Your task to perform on an android device: delete location history Image 0: 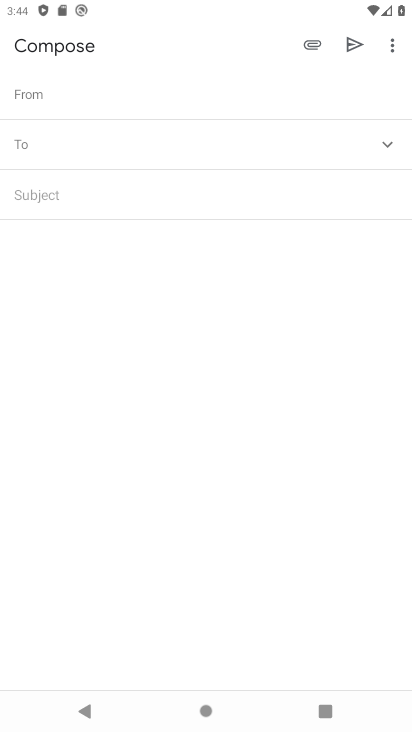
Step 0: drag from (266, 587) to (249, 306)
Your task to perform on an android device: delete location history Image 1: 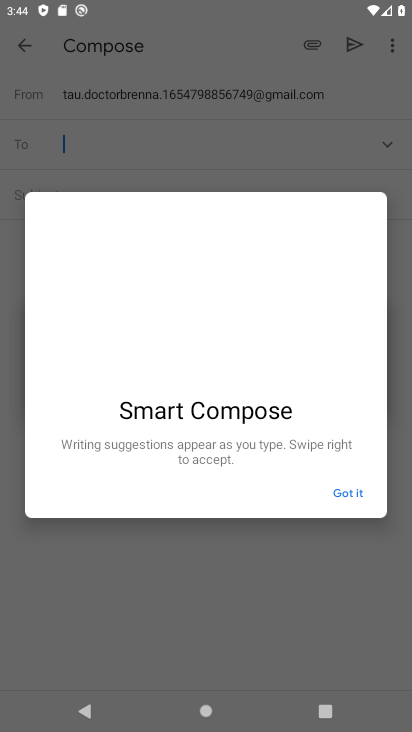
Step 1: press home button
Your task to perform on an android device: delete location history Image 2: 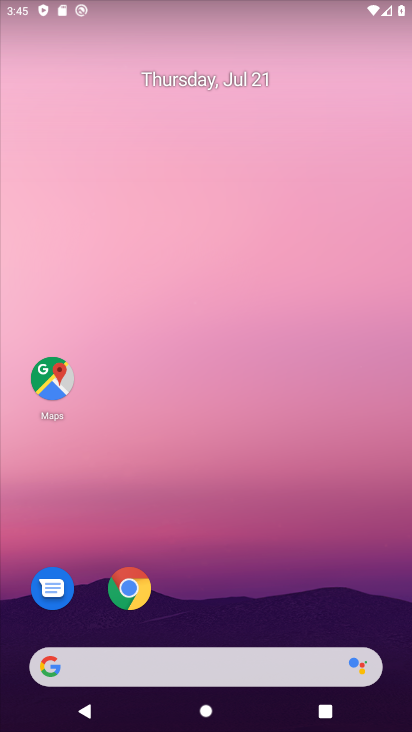
Step 2: drag from (232, 579) to (309, 35)
Your task to perform on an android device: delete location history Image 3: 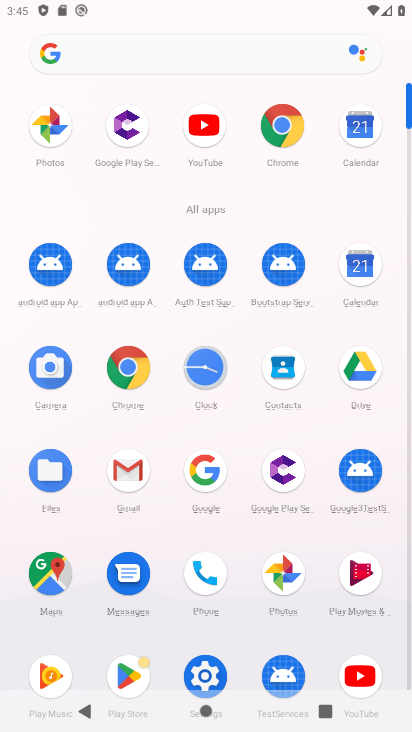
Step 3: click (204, 670)
Your task to perform on an android device: delete location history Image 4: 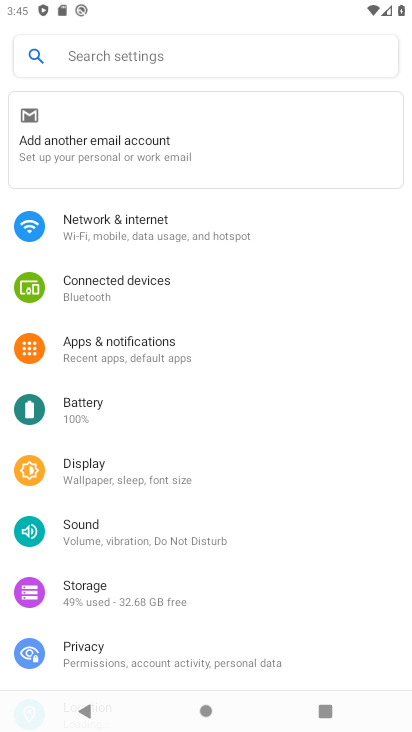
Step 4: drag from (149, 596) to (210, 199)
Your task to perform on an android device: delete location history Image 5: 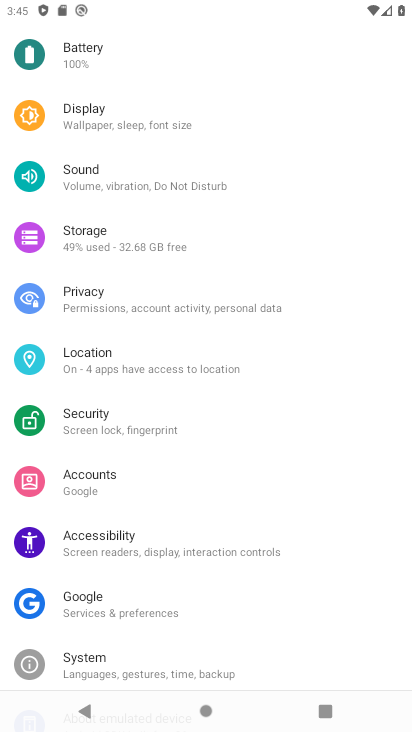
Step 5: click (84, 360)
Your task to perform on an android device: delete location history Image 6: 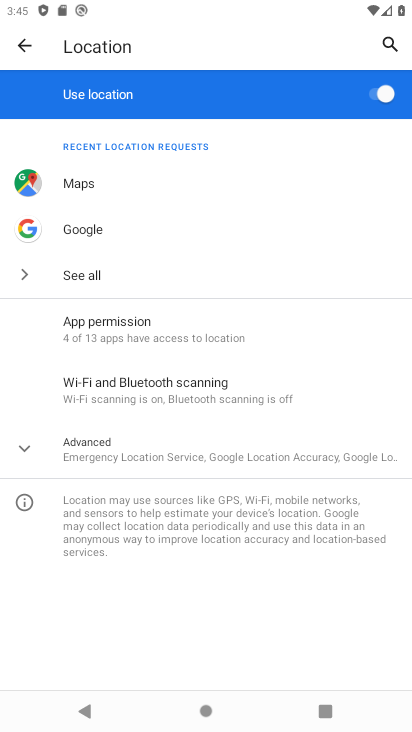
Step 6: press home button
Your task to perform on an android device: delete location history Image 7: 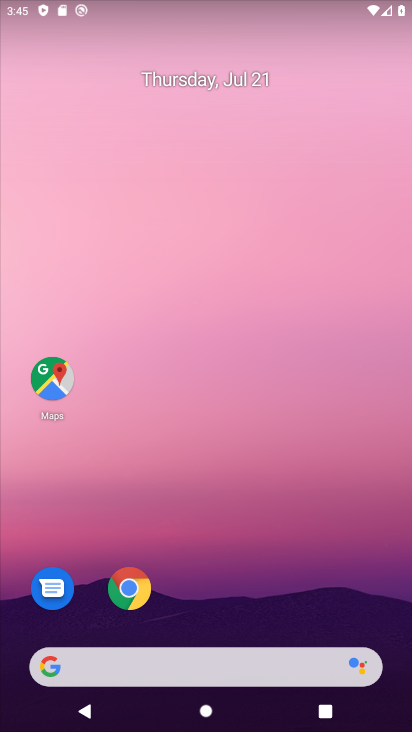
Step 7: click (48, 367)
Your task to perform on an android device: delete location history Image 8: 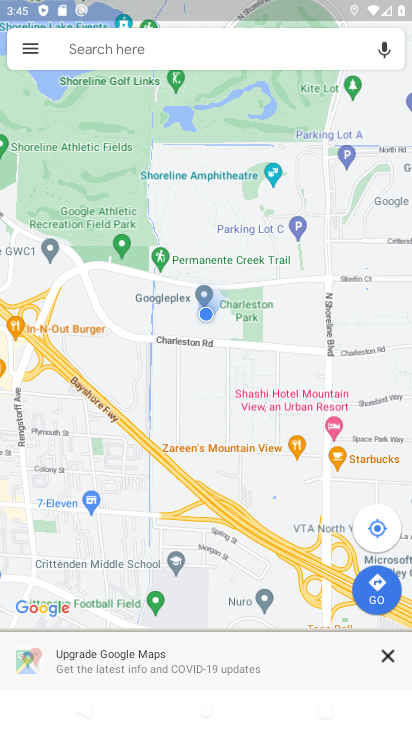
Step 8: click (21, 43)
Your task to perform on an android device: delete location history Image 9: 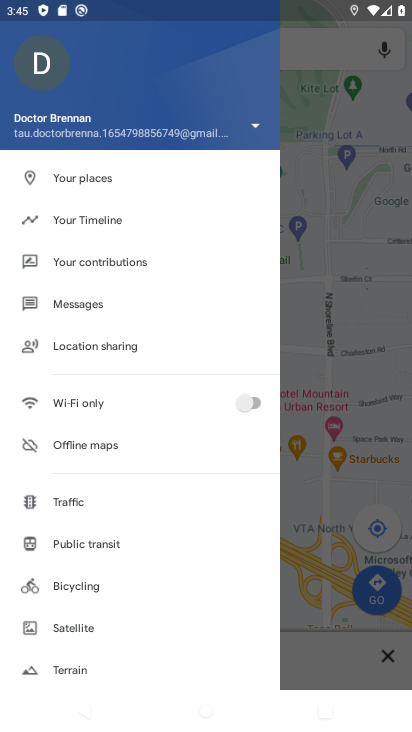
Step 9: click (75, 211)
Your task to perform on an android device: delete location history Image 10: 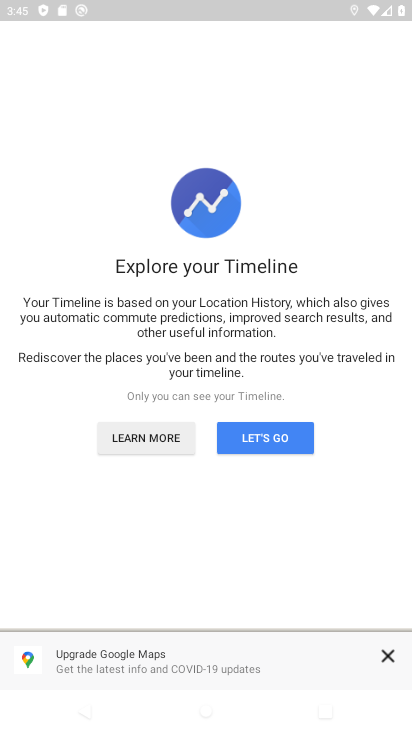
Step 10: click (248, 442)
Your task to perform on an android device: delete location history Image 11: 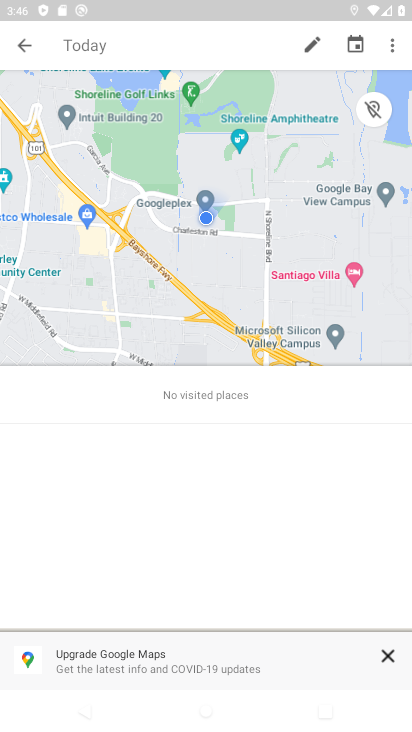
Step 11: click (388, 41)
Your task to perform on an android device: delete location history Image 12: 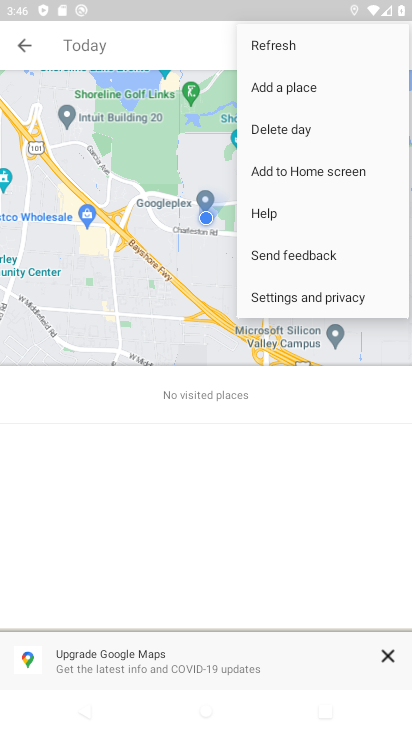
Step 12: click (313, 294)
Your task to perform on an android device: delete location history Image 13: 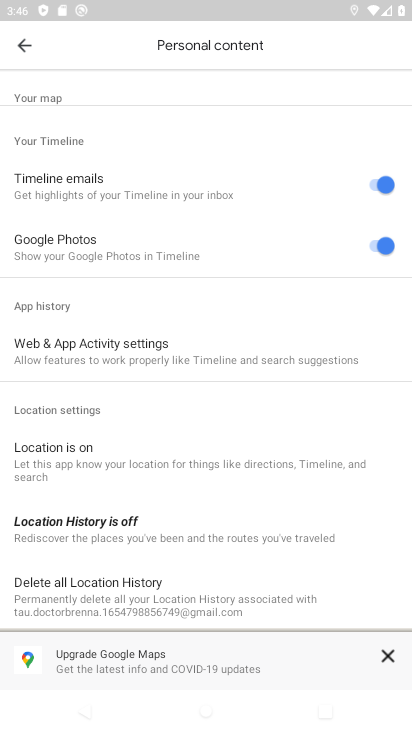
Step 13: click (162, 528)
Your task to perform on an android device: delete location history Image 14: 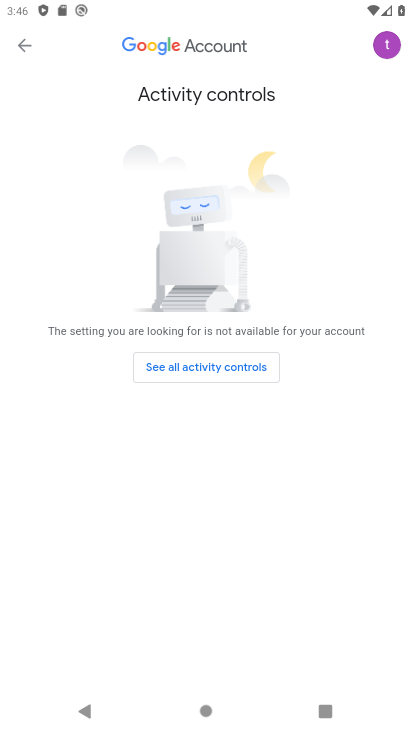
Step 14: task complete